Your task to perform on an android device: Open Google Chrome and click the shortcut for Amazon.com Image 0: 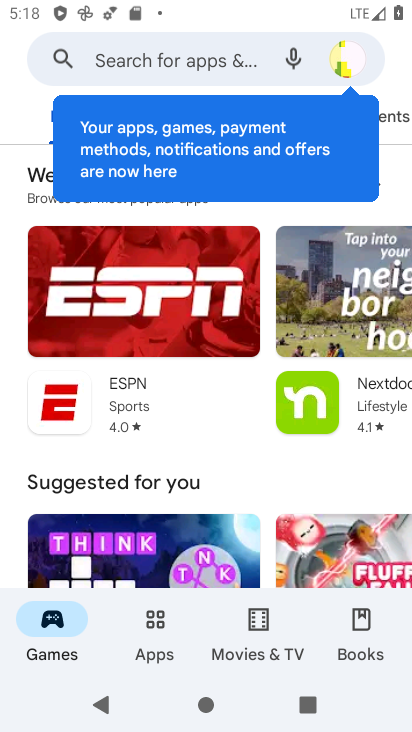
Step 0: press back button
Your task to perform on an android device: Open Google Chrome and click the shortcut for Amazon.com Image 1: 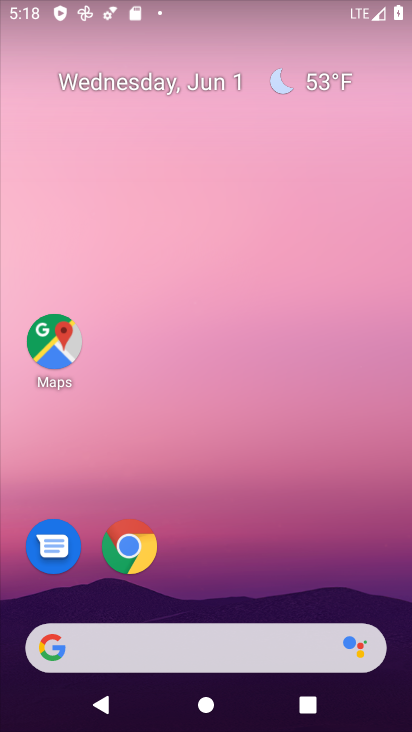
Step 1: drag from (307, 571) to (202, 30)
Your task to perform on an android device: Open Google Chrome and click the shortcut for Amazon.com Image 2: 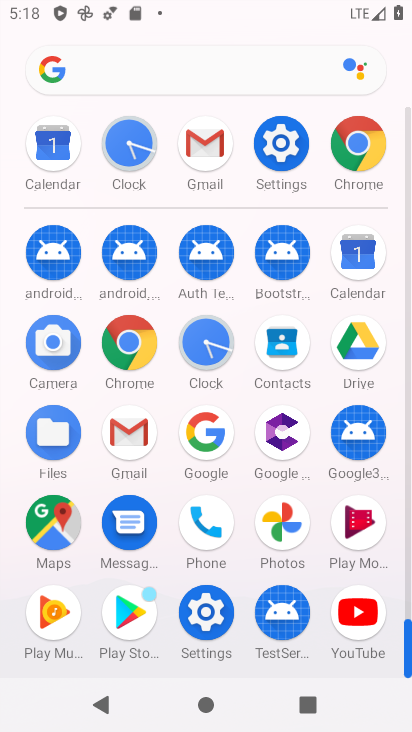
Step 2: drag from (1, 588) to (5, 177)
Your task to perform on an android device: Open Google Chrome and click the shortcut for Amazon.com Image 3: 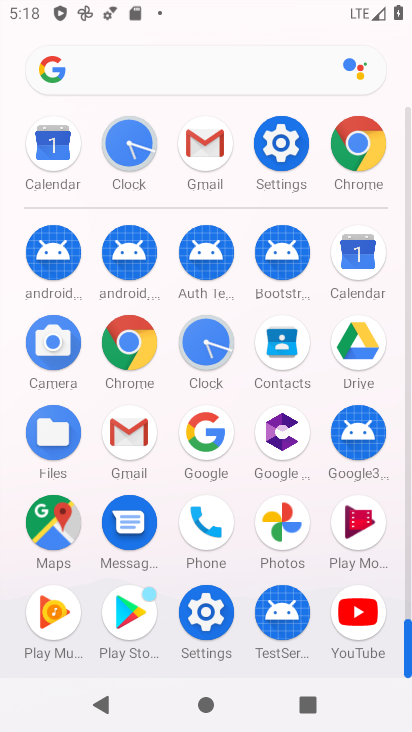
Step 3: drag from (8, 546) to (24, 259)
Your task to perform on an android device: Open Google Chrome and click the shortcut for Amazon.com Image 4: 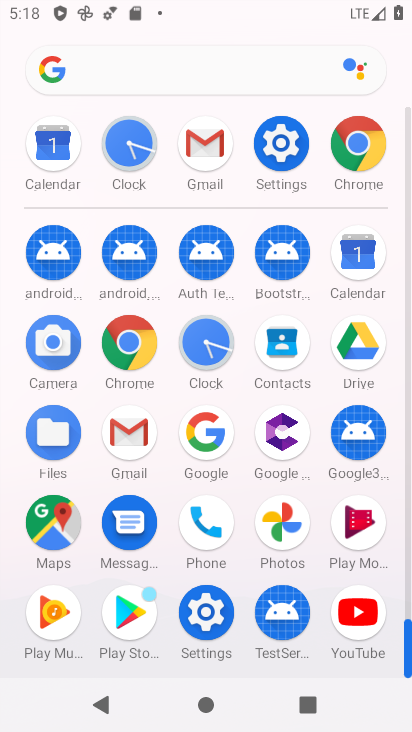
Step 4: click (133, 336)
Your task to perform on an android device: Open Google Chrome and click the shortcut for Amazon.com Image 5: 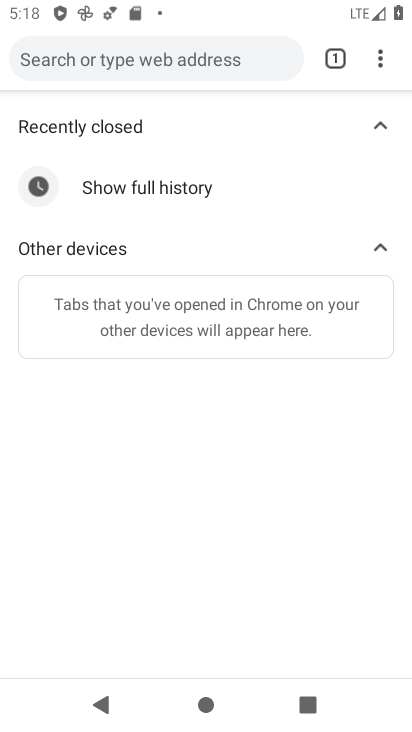
Step 5: click (125, 60)
Your task to perform on an android device: Open Google Chrome and click the shortcut for Amazon.com Image 6: 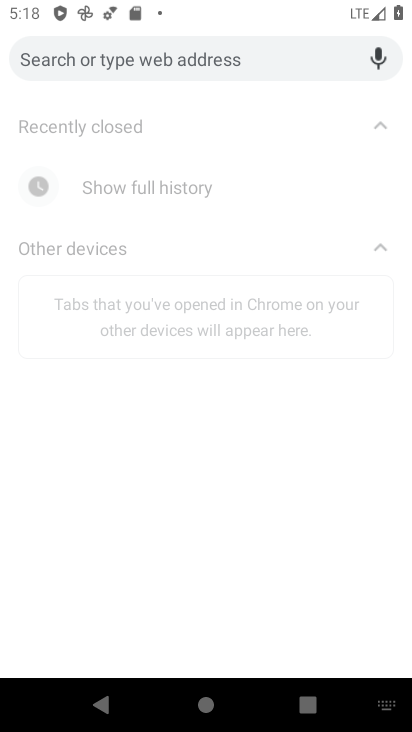
Step 6: type "Amazon.com"
Your task to perform on an android device: Open Google Chrome and click the shortcut for Amazon.com Image 7: 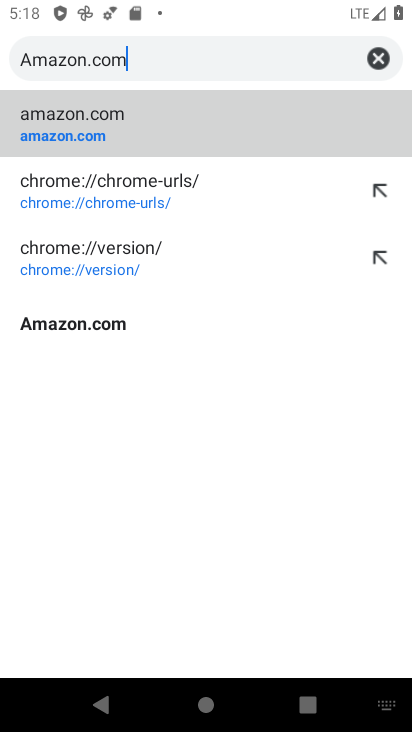
Step 7: type ""
Your task to perform on an android device: Open Google Chrome and click the shortcut for Amazon.com Image 8: 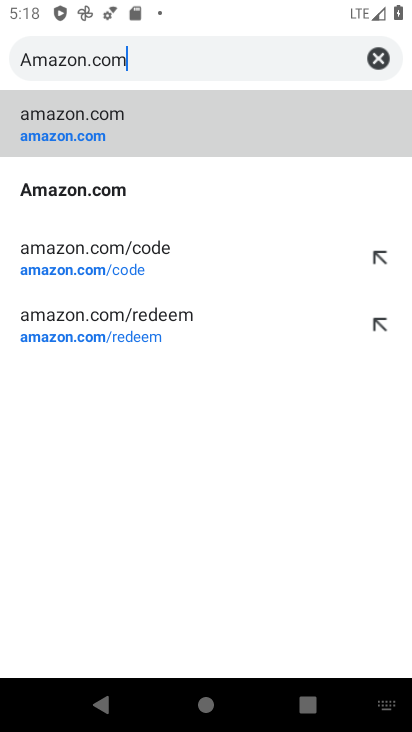
Step 8: click (147, 110)
Your task to perform on an android device: Open Google Chrome and click the shortcut for Amazon.com Image 9: 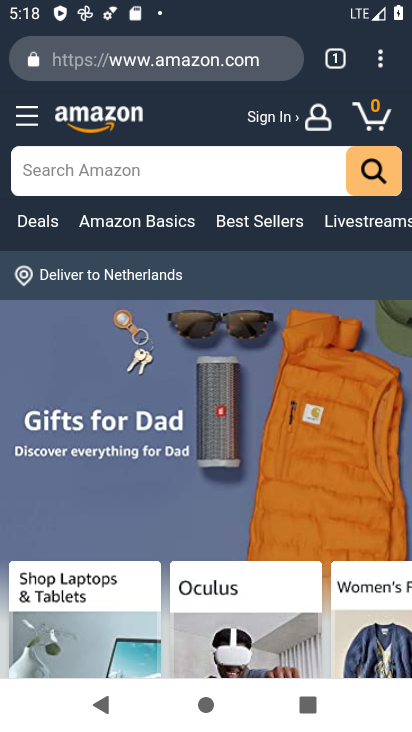
Step 9: drag from (381, 56) to (207, 589)
Your task to perform on an android device: Open Google Chrome and click the shortcut for Amazon.com Image 10: 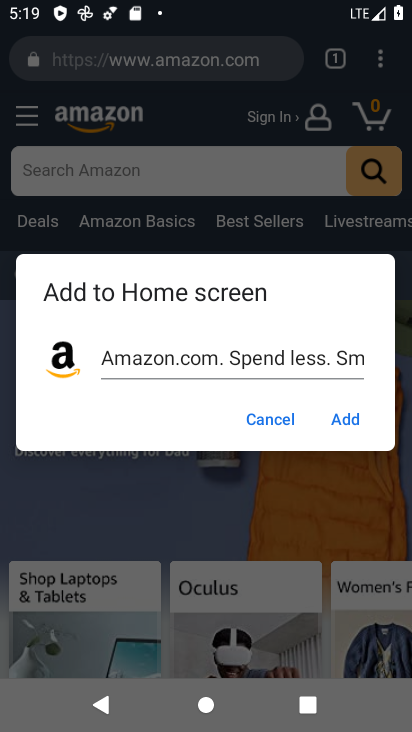
Step 10: click (353, 415)
Your task to perform on an android device: Open Google Chrome and click the shortcut for Amazon.com Image 11: 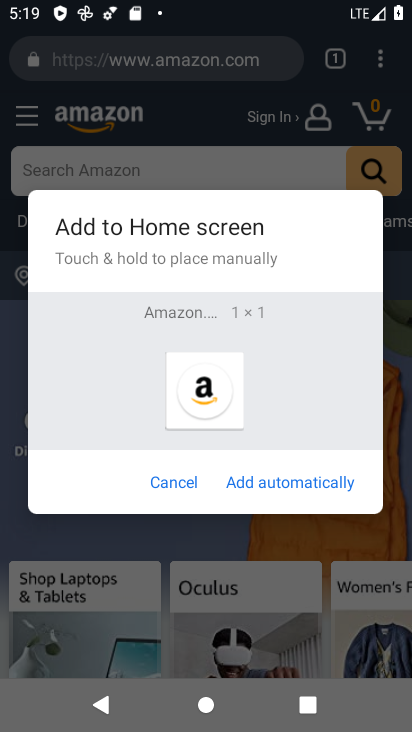
Step 11: click (301, 477)
Your task to perform on an android device: Open Google Chrome and click the shortcut for Amazon.com Image 12: 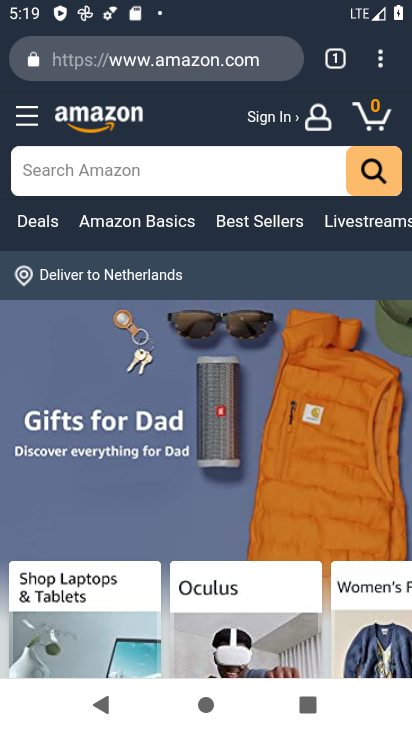
Step 12: task complete